Your task to perform on an android device: Open CNN.com Image 0: 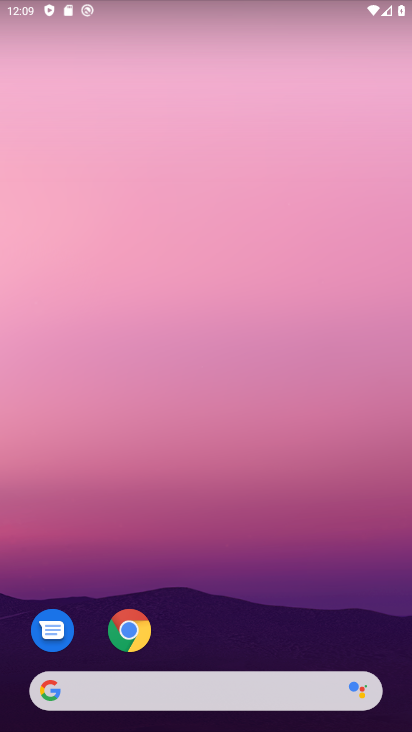
Step 0: click (133, 632)
Your task to perform on an android device: Open CNN.com Image 1: 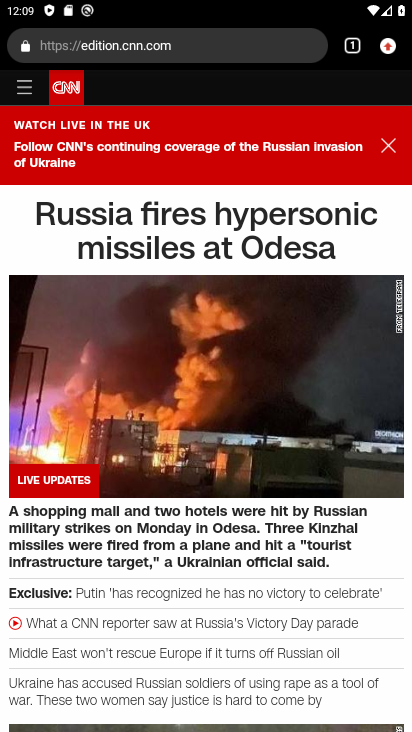
Step 1: task complete